Your task to perform on an android device: turn on priority inbox in the gmail app Image 0: 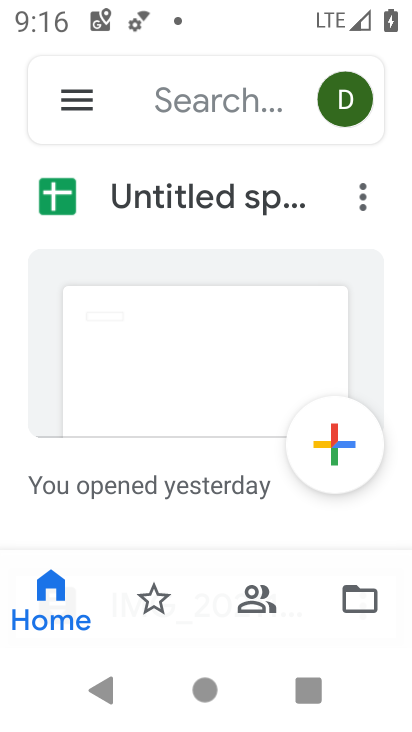
Step 0: press home button
Your task to perform on an android device: turn on priority inbox in the gmail app Image 1: 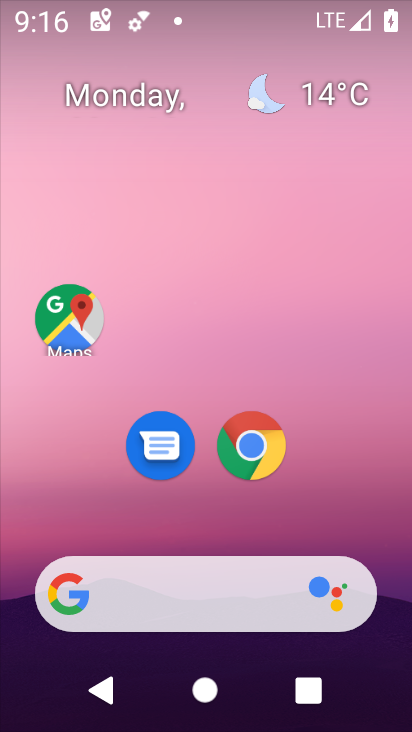
Step 1: drag from (206, 534) to (205, 42)
Your task to perform on an android device: turn on priority inbox in the gmail app Image 2: 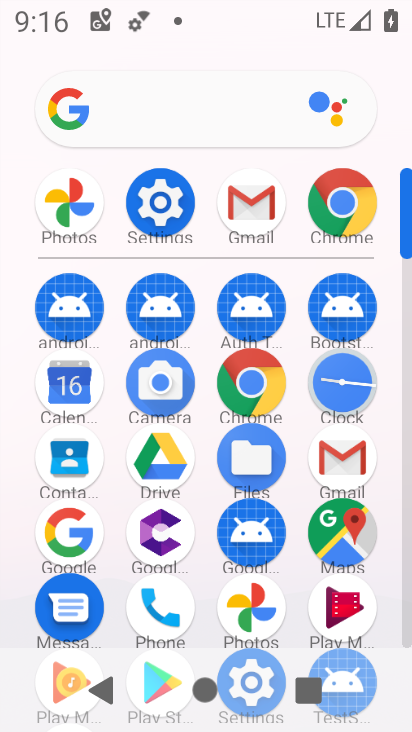
Step 2: click (253, 201)
Your task to perform on an android device: turn on priority inbox in the gmail app Image 3: 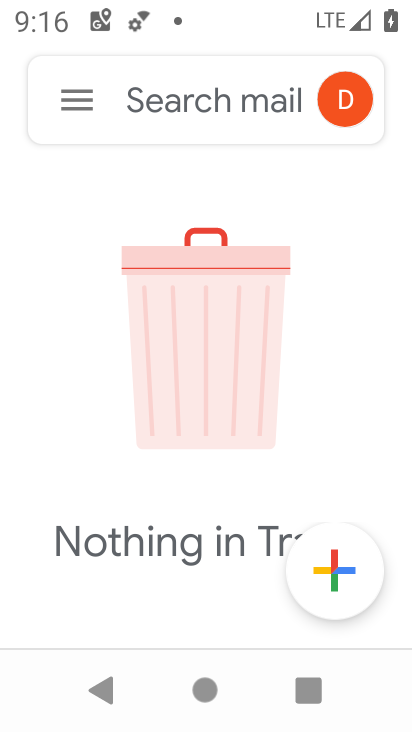
Step 3: click (71, 87)
Your task to perform on an android device: turn on priority inbox in the gmail app Image 4: 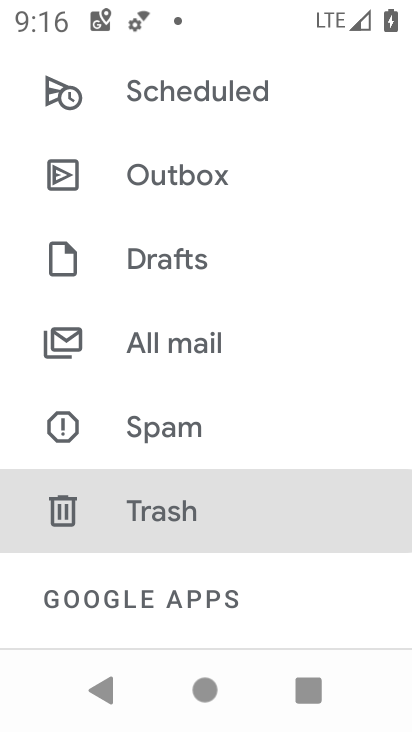
Step 4: drag from (208, 577) to (191, 70)
Your task to perform on an android device: turn on priority inbox in the gmail app Image 5: 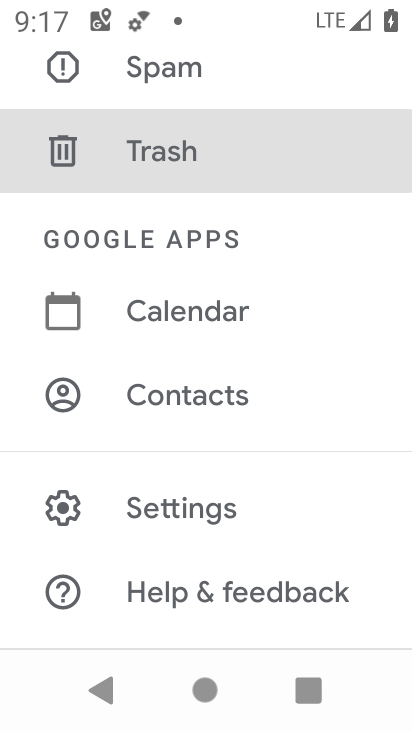
Step 5: click (253, 507)
Your task to perform on an android device: turn on priority inbox in the gmail app Image 6: 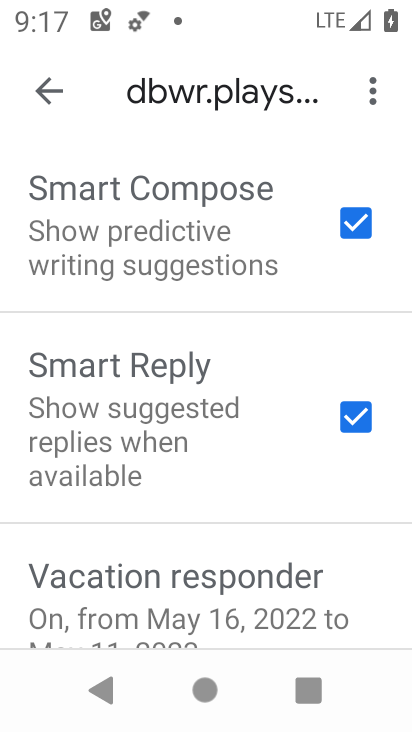
Step 6: drag from (171, 174) to (198, 689)
Your task to perform on an android device: turn on priority inbox in the gmail app Image 7: 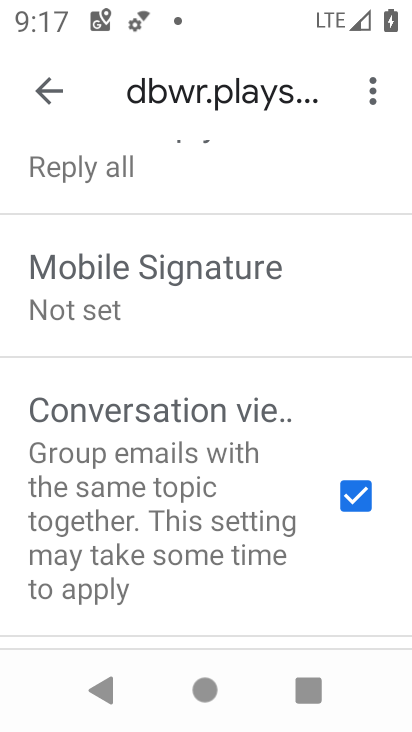
Step 7: drag from (203, 216) to (203, 703)
Your task to perform on an android device: turn on priority inbox in the gmail app Image 8: 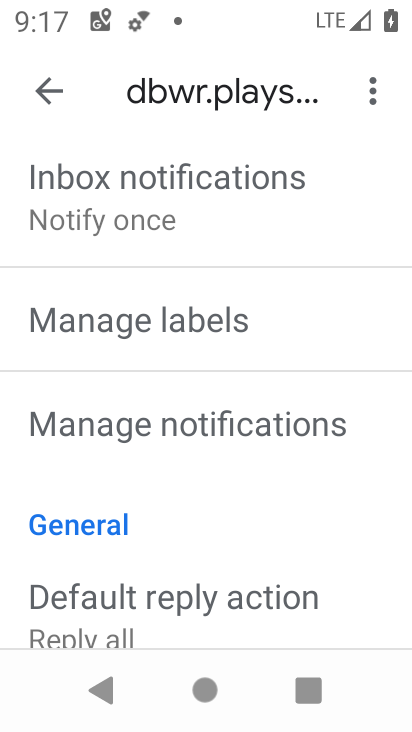
Step 8: drag from (197, 190) to (197, 689)
Your task to perform on an android device: turn on priority inbox in the gmail app Image 9: 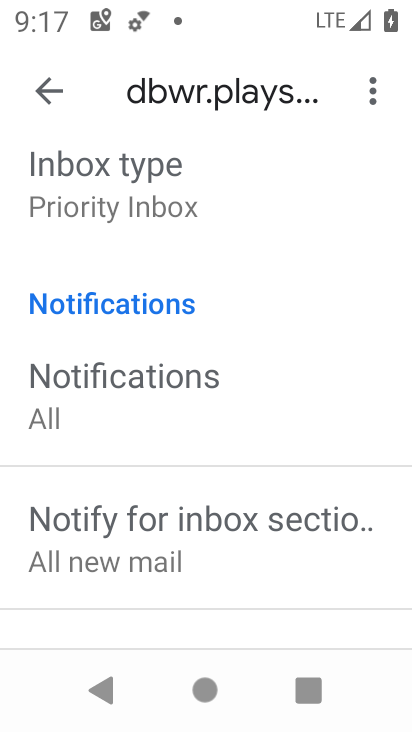
Step 9: drag from (199, 187) to (210, 636)
Your task to perform on an android device: turn on priority inbox in the gmail app Image 10: 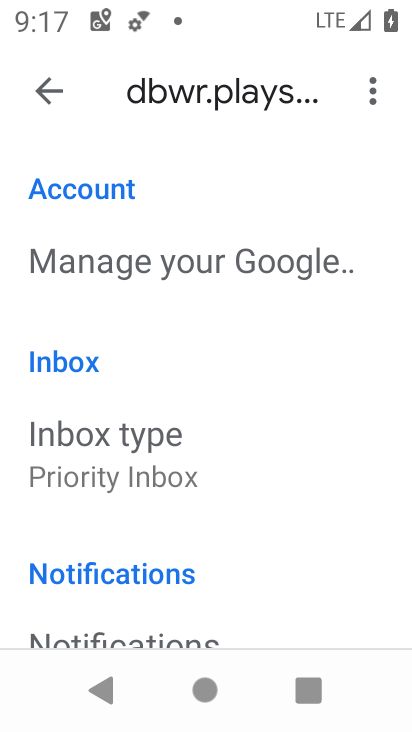
Step 10: click (197, 455)
Your task to perform on an android device: turn on priority inbox in the gmail app Image 11: 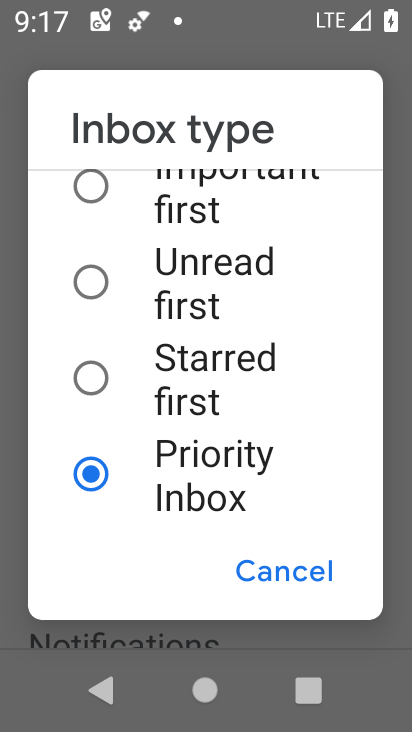
Step 11: click (119, 473)
Your task to perform on an android device: turn on priority inbox in the gmail app Image 12: 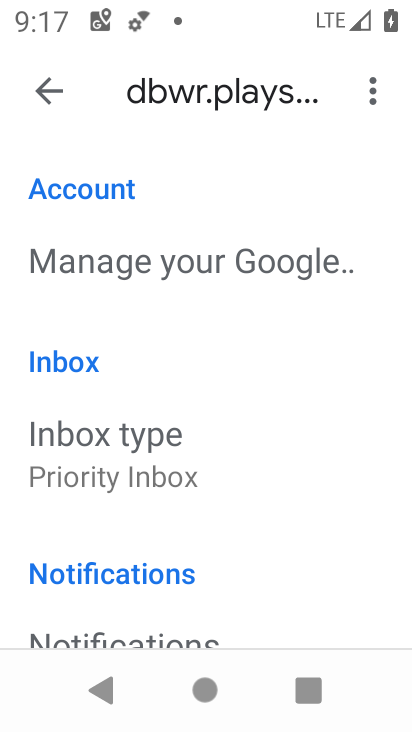
Step 12: task complete